Your task to perform on an android device: add a contact in the contacts app Image 0: 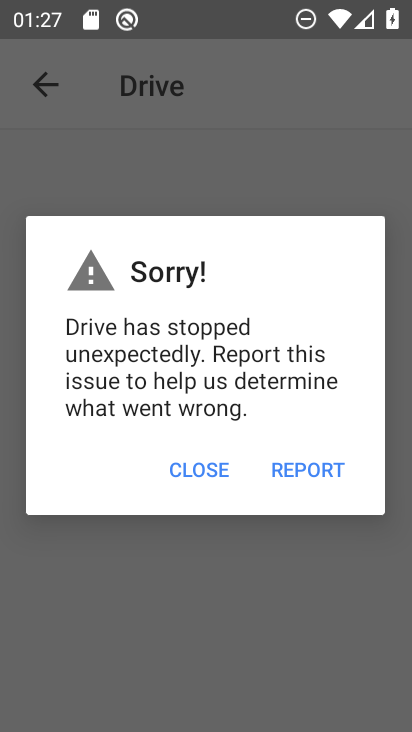
Step 0: press home button
Your task to perform on an android device: add a contact in the contacts app Image 1: 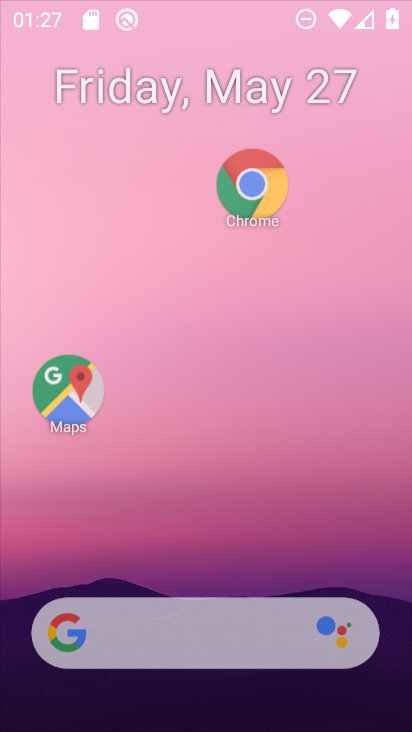
Step 1: drag from (174, 588) to (243, 95)
Your task to perform on an android device: add a contact in the contacts app Image 2: 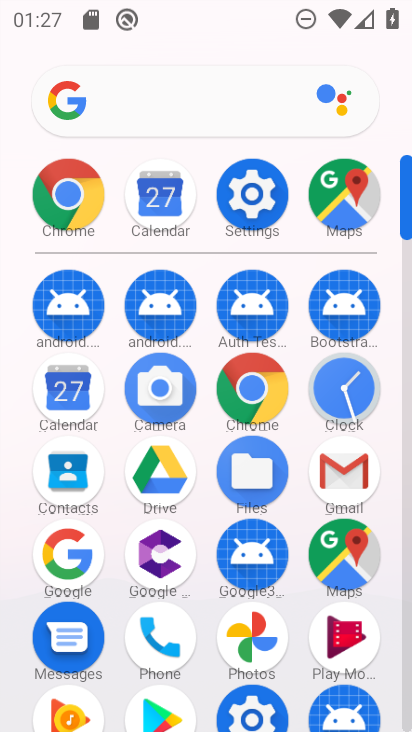
Step 2: click (68, 463)
Your task to perform on an android device: add a contact in the contacts app Image 3: 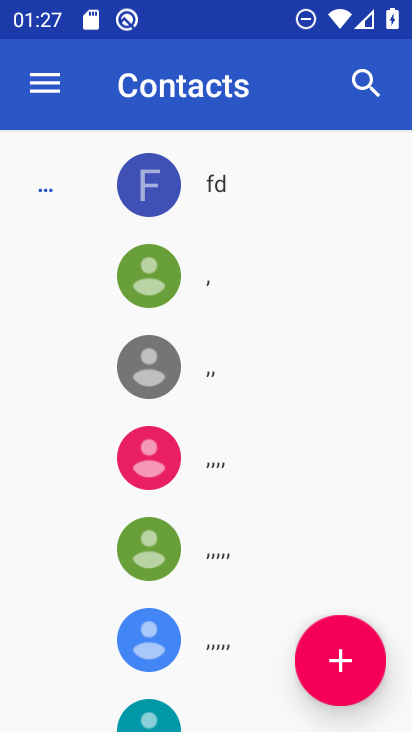
Step 3: drag from (137, 634) to (236, 349)
Your task to perform on an android device: add a contact in the contacts app Image 4: 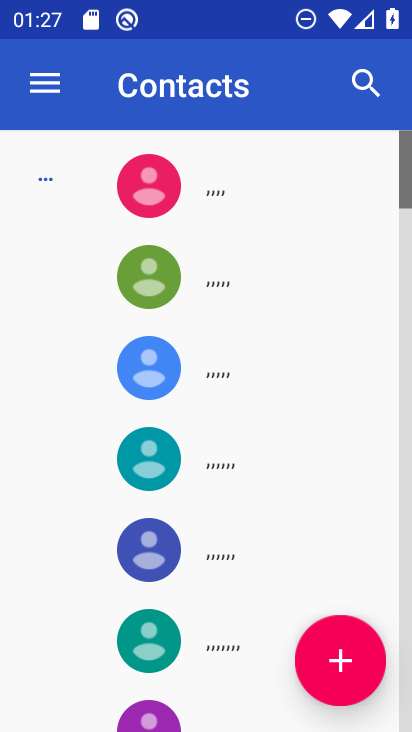
Step 4: click (339, 693)
Your task to perform on an android device: add a contact in the contacts app Image 5: 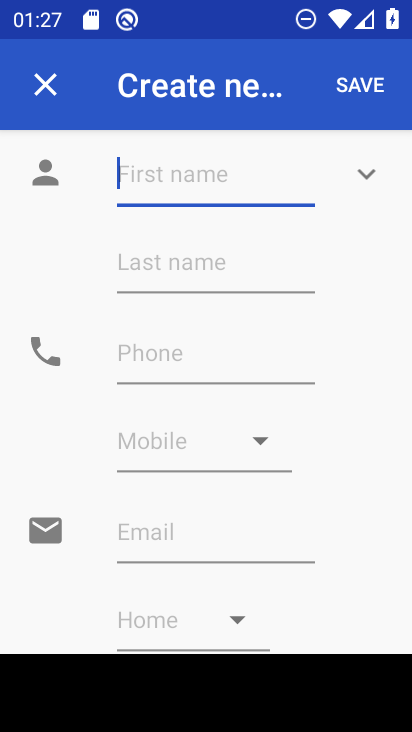
Step 5: type " in the"
Your task to perform on an android device: add a contact in the contacts app Image 6: 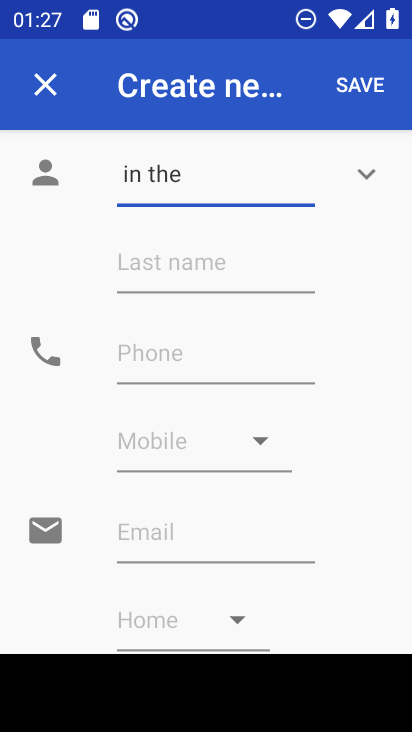
Step 6: click (337, 95)
Your task to perform on an android device: add a contact in the contacts app Image 7: 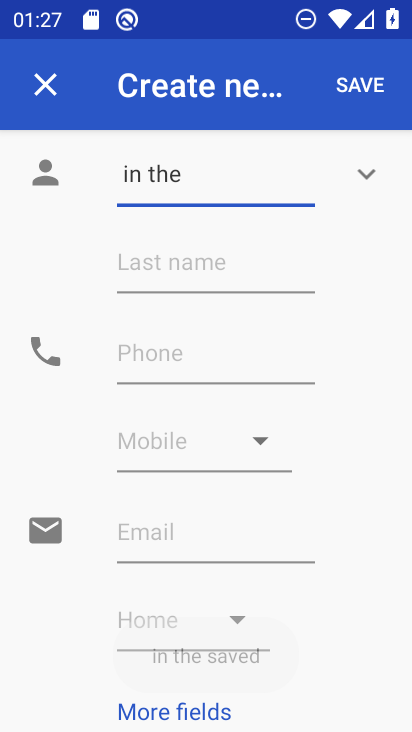
Step 7: task complete